Your task to perform on an android device: What is the news today? Image 0: 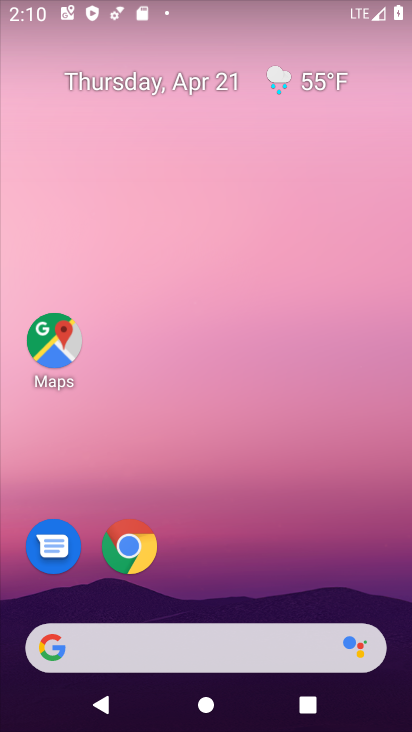
Step 0: click (187, 641)
Your task to perform on an android device: What is the news today? Image 1: 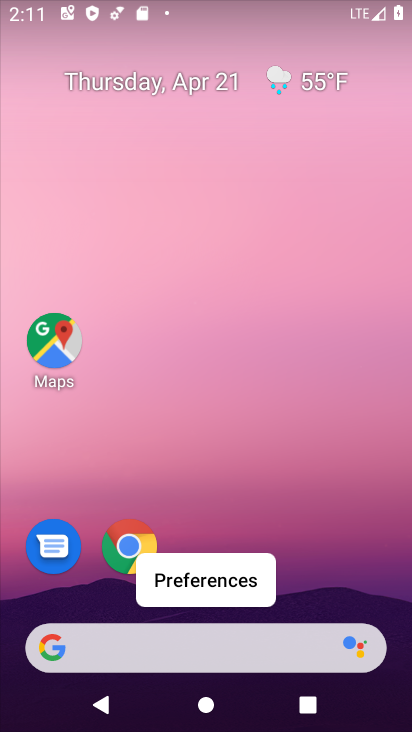
Step 1: click (213, 644)
Your task to perform on an android device: What is the news today? Image 2: 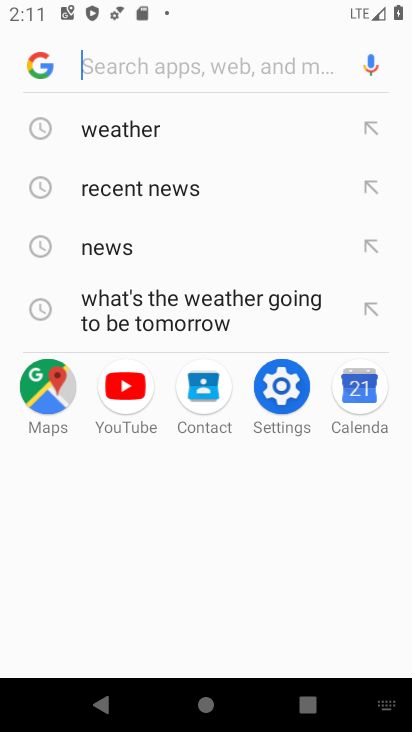
Step 2: click (40, 56)
Your task to perform on an android device: What is the news today? Image 3: 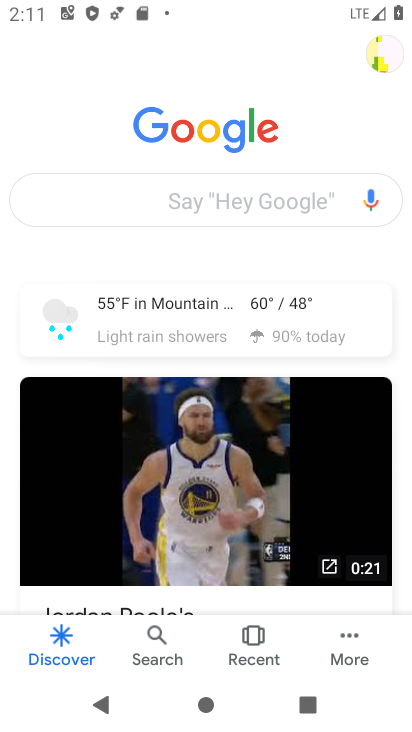
Step 3: drag from (45, 602) to (62, 193)
Your task to perform on an android device: What is the news today? Image 4: 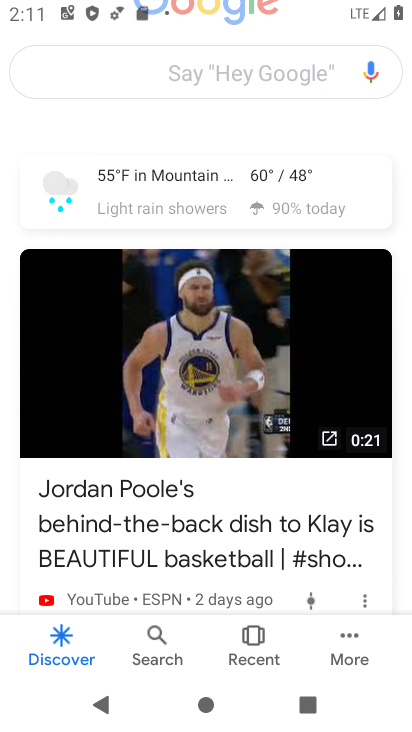
Step 4: drag from (148, 553) to (167, 51)
Your task to perform on an android device: What is the news today? Image 5: 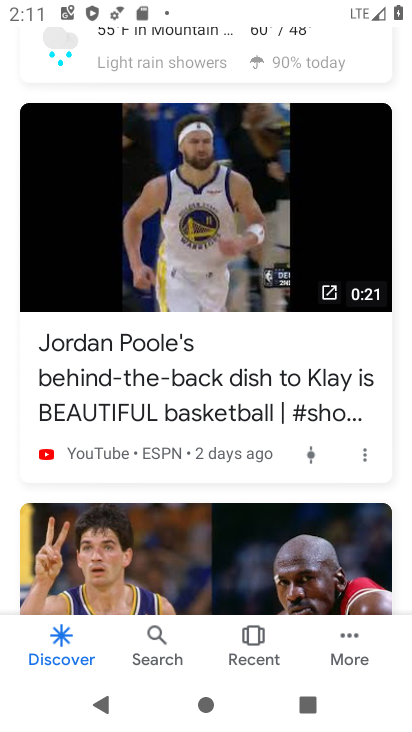
Step 5: drag from (120, 465) to (119, 232)
Your task to perform on an android device: What is the news today? Image 6: 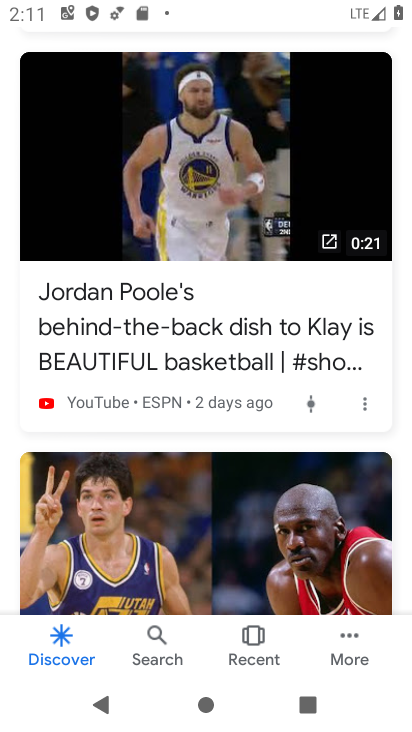
Step 6: type "news today"
Your task to perform on an android device: What is the news today? Image 7: 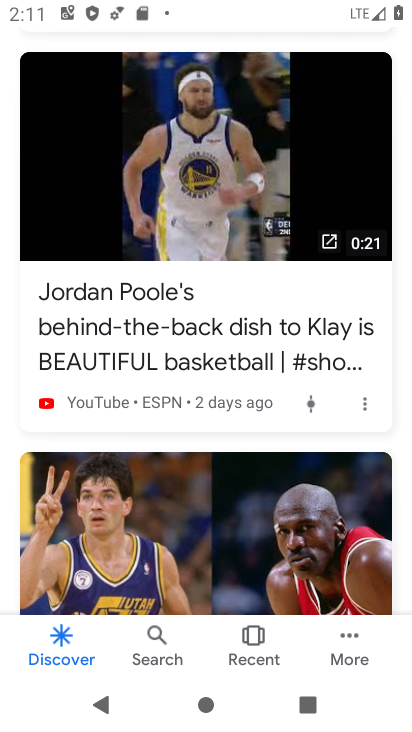
Step 7: click (252, 655)
Your task to perform on an android device: What is the news today? Image 8: 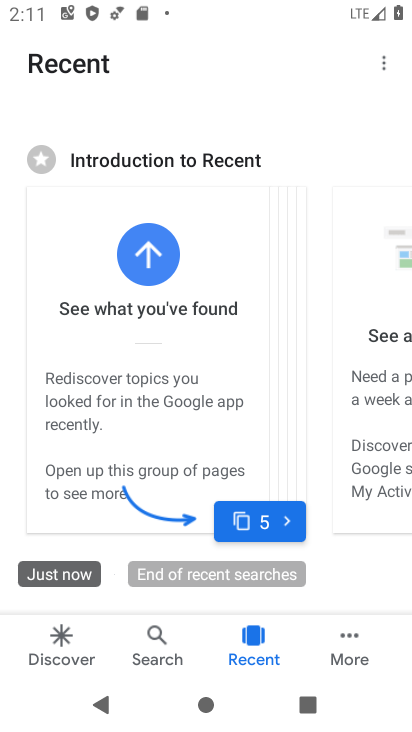
Step 8: click (158, 634)
Your task to perform on an android device: What is the news today? Image 9: 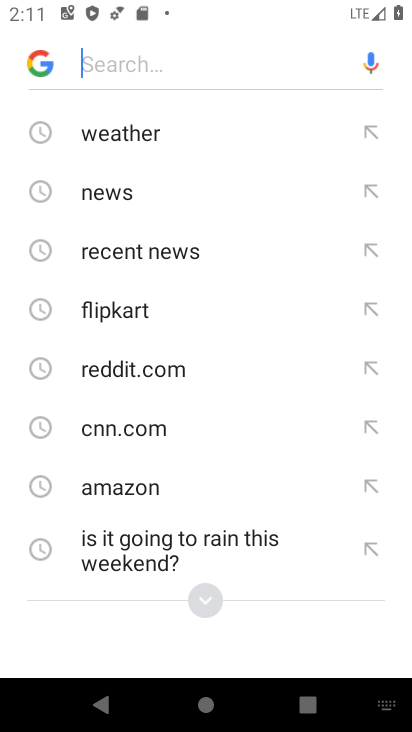
Step 9: type "news today"
Your task to perform on an android device: What is the news today? Image 10: 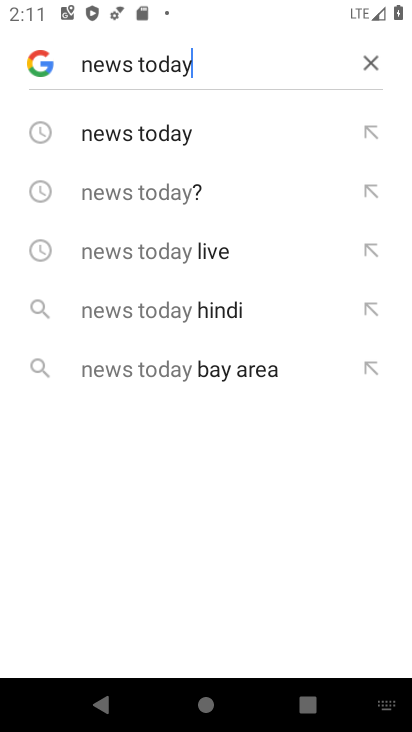
Step 10: click (112, 165)
Your task to perform on an android device: What is the news today? Image 11: 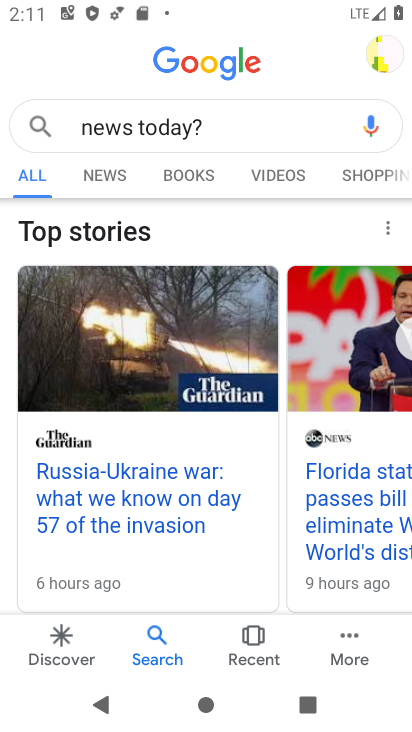
Step 11: task complete